Your task to perform on an android device: Search for sushi restaurants on Maps Image 0: 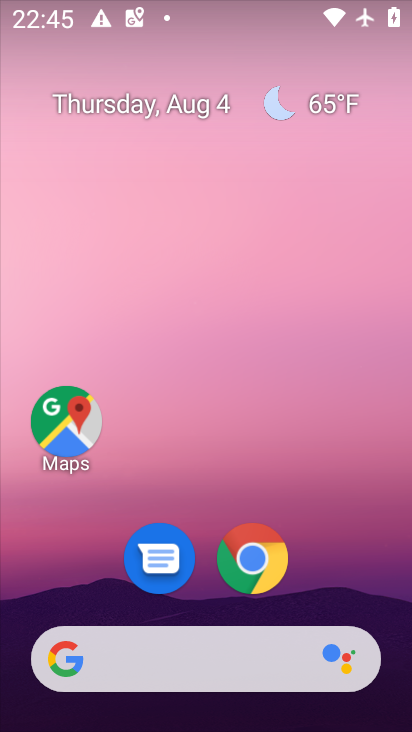
Step 0: drag from (336, 499) to (399, 73)
Your task to perform on an android device: Search for sushi restaurants on Maps Image 1: 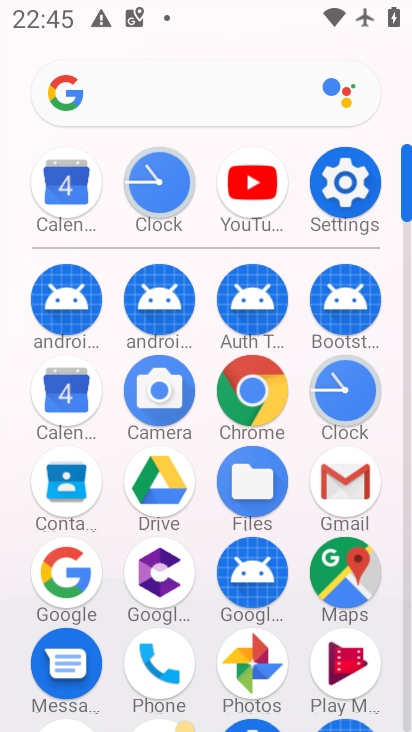
Step 1: click (332, 567)
Your task to perform on an android device: Search for sushi restaurants on Maps Image 2: 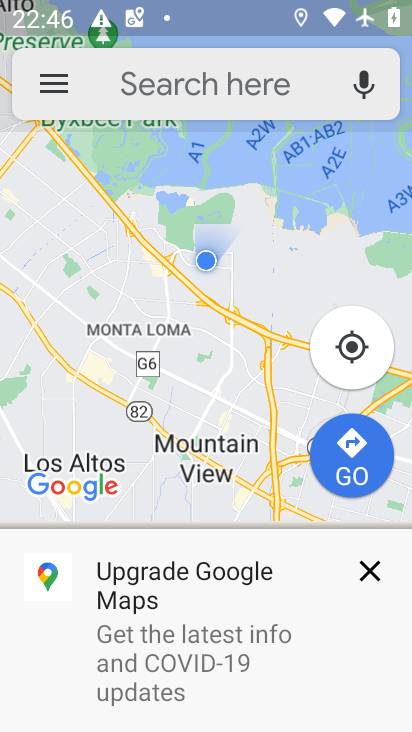
Step 2: click (214, 63)
Your task to perform on an android device: Search for sushi restaurants on Maps Image 3: 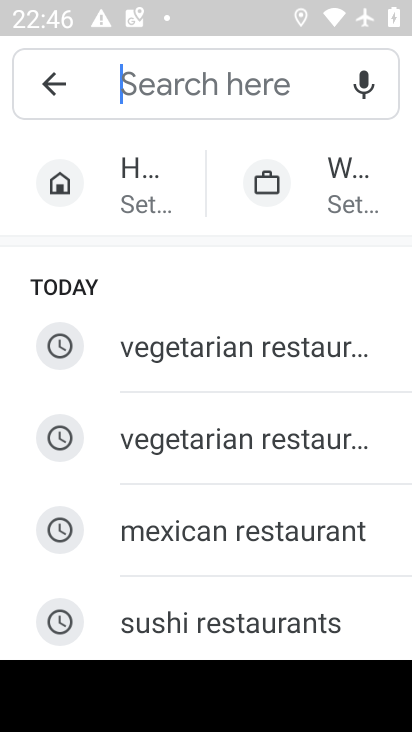
Step 3: click (325, 621)
Your task to perform on an android device: Search for sushi restaurants on Maps Image 4: 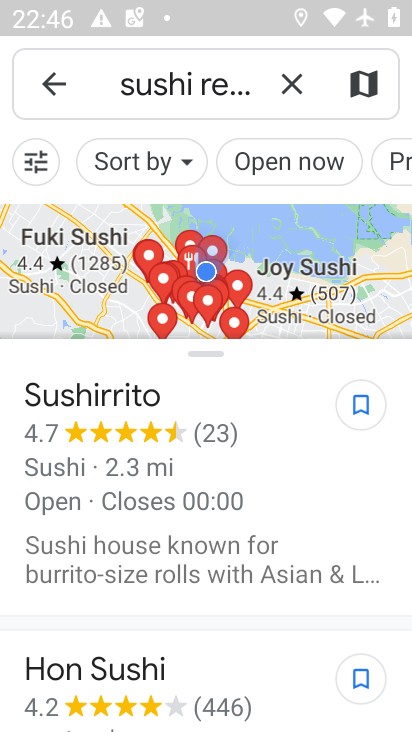
Step 4: task complete